Your task to perform on an android device: Play the last video I watched on Youtube Image 0: 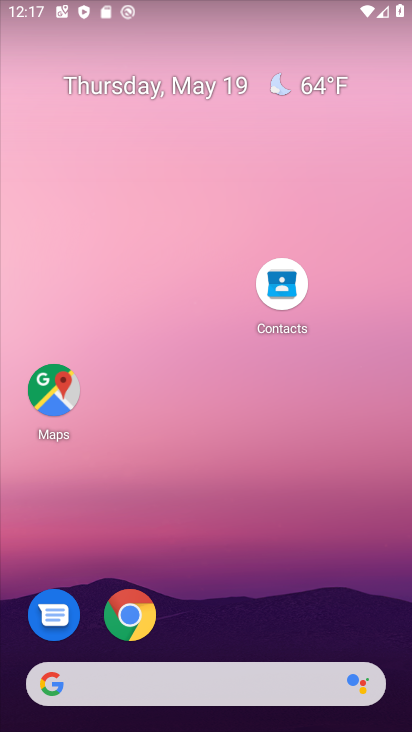
Step 0: drag from (271, 612) to (308, 284)
Your task to perform on an android device: Play the last video I watched on Youtube Image 1: 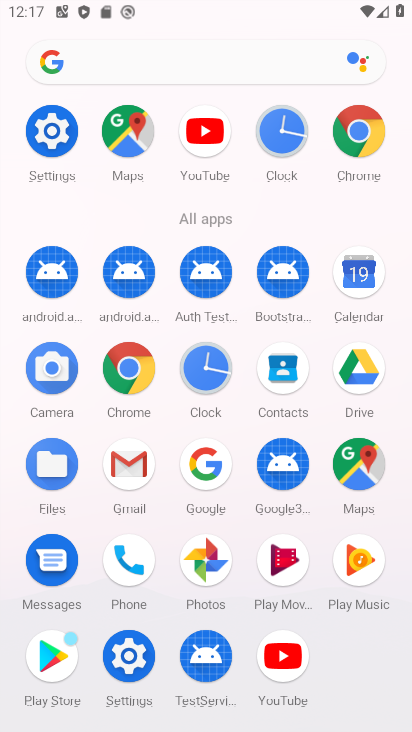
Step 1: click (273, 663)
Your task to perform on an android device: Play the last video I watched on Youtube Image 2: 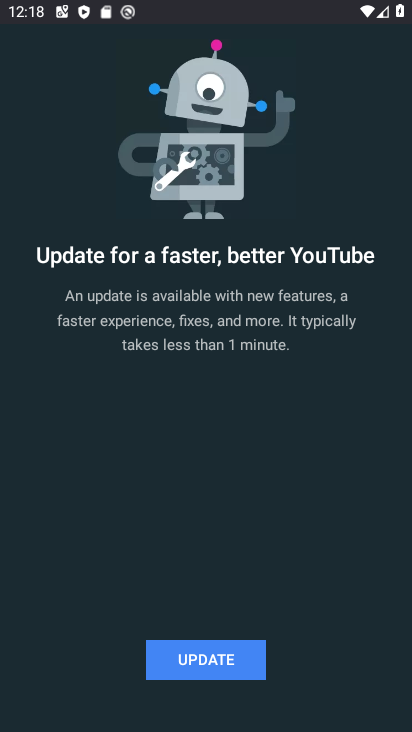
Step 2: task complete